Your task to perform on an android device: toggle data saver in the chrome app Image 0: 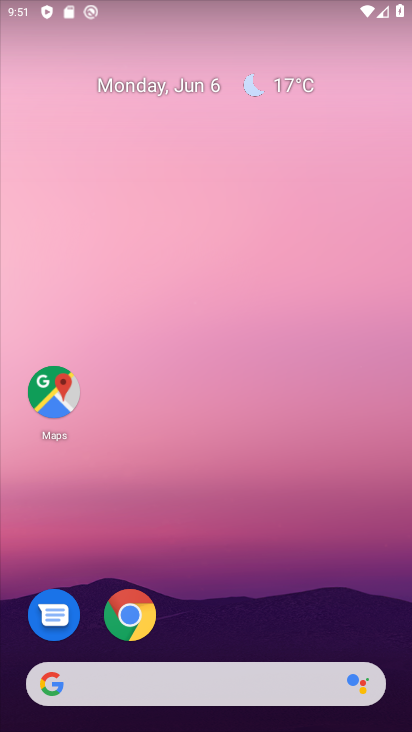
Step 0: press home button
Your task to perform on an android device: toggle data saver in the chrome app Image 1: 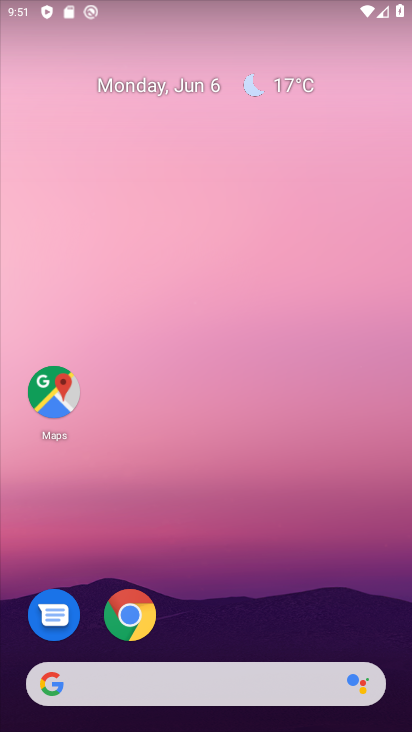
Step 1: click (130, 610)
Your task to perform on an android device: toggle data saver in the chrome app Image 2: 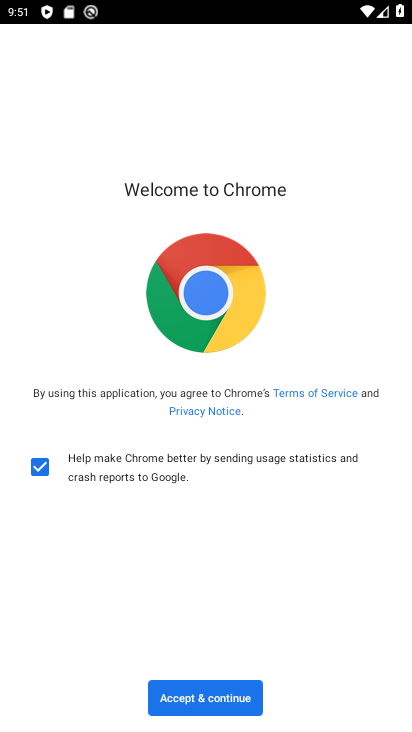
Step 2: click (196, 691)
Your task to perform on an android device: toggle data saver in the chrome app Image 3: 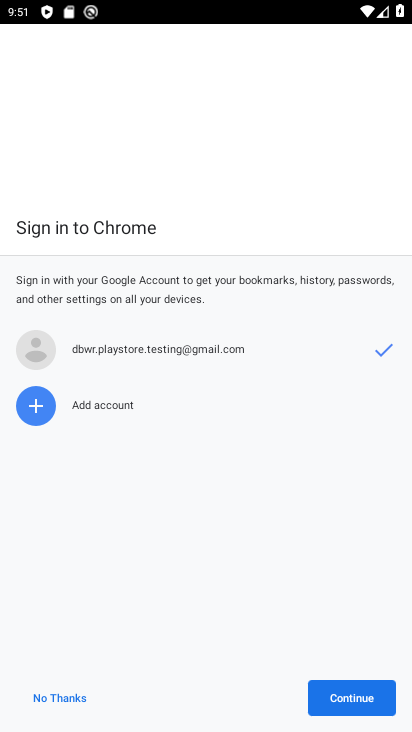
Step 3: click (348, 698)
Your task to perform on an android device: toggle data saver in the chrome app Image 4: 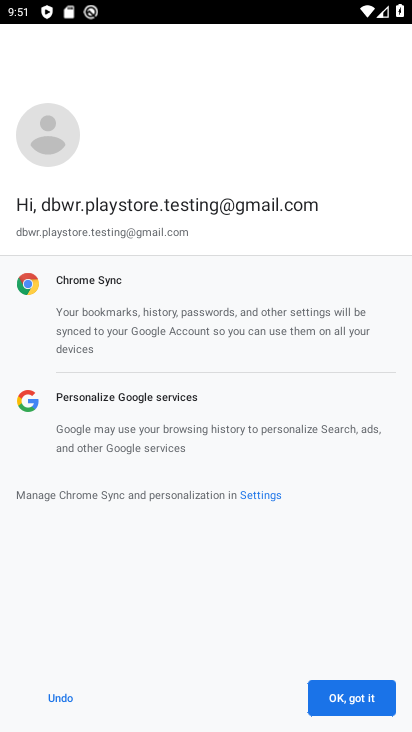
Step 4: click (348, 698)
Your task to perform on an android device: toggle data saver in the chrome app Image 5: 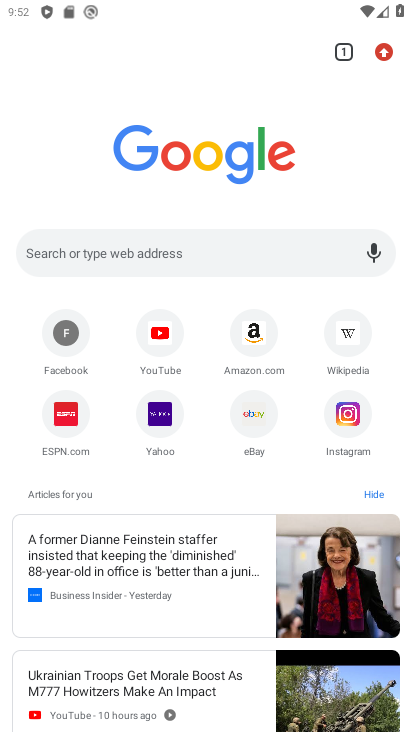
Step 5: click (391, 44)
Your task to perform on an android device: toggle data saver in the chrome app Image 6: 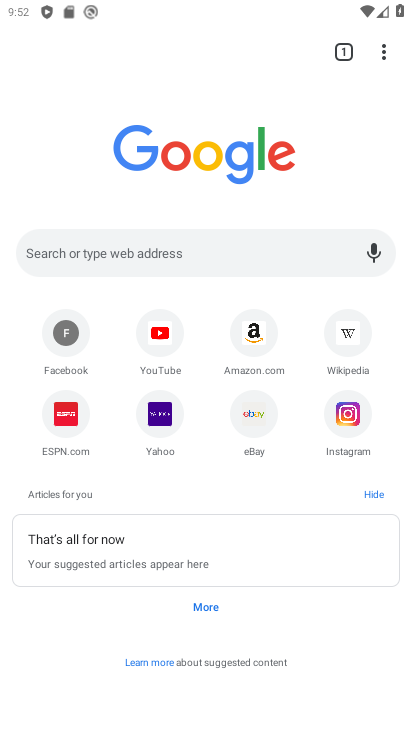
Step 6: click (383, 50)
Your task to perform on an android device: toggle data saver in the chrome app Image 7: 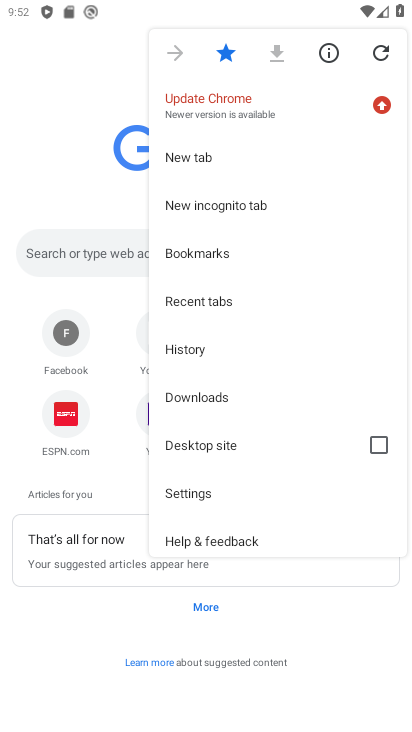
Step 7: click (221, 487)
Your task to perform on an android device: toggle data saver in the chrome app Image 8: 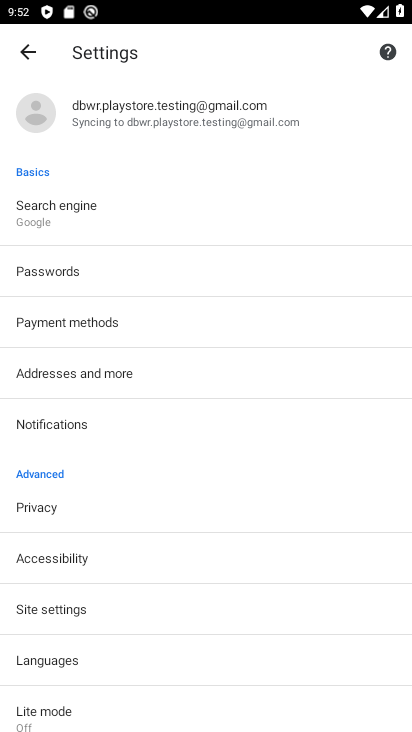
Step 8: click (101, 707)
Your task to perform on an android device: toggle data saver in the chrome app Image 9: 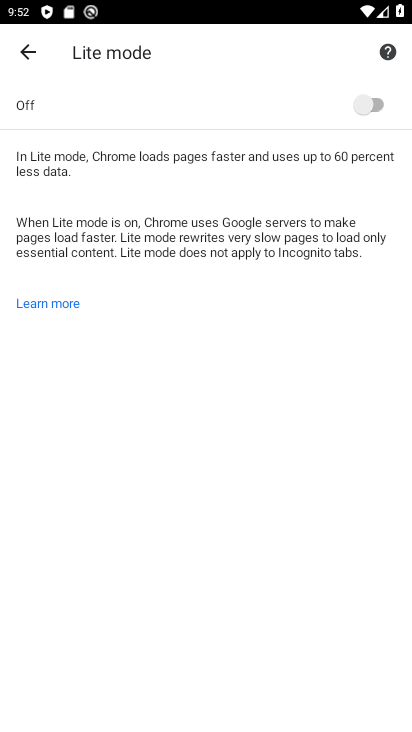
Step 9: click (373, 101)
Your task to perform on an android device: toggle data saver in the chrome app Image 10: 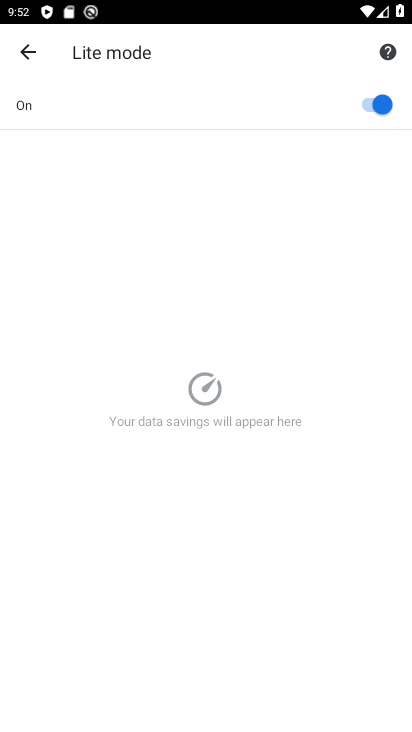
Step 10: task complete